Your task to perform on an android device: Open the stopwatch Image 0: 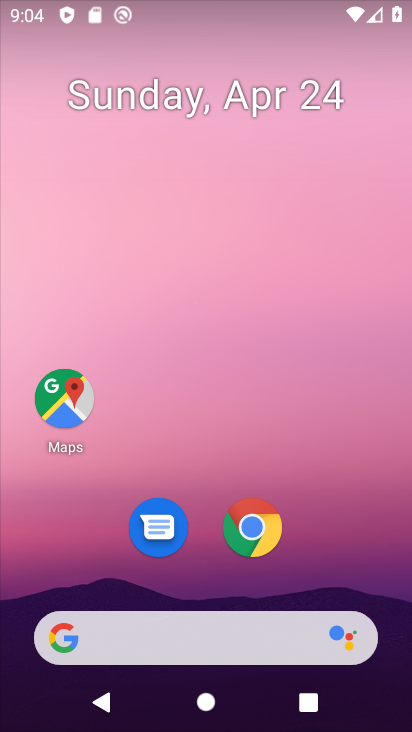
Step 0: drag from (193, 483) to (241, 101)
Your task to perform on an android device: Open the stopwatch Image 1: 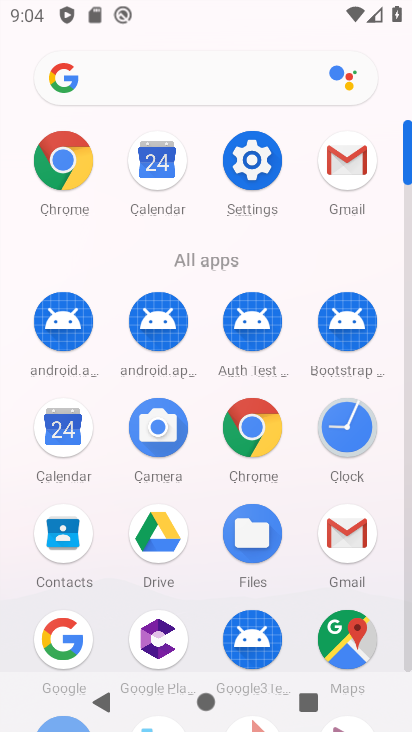
Step 1: click (344, 427)
Your task to perform on an android device: Open the stopwatch Image 2: 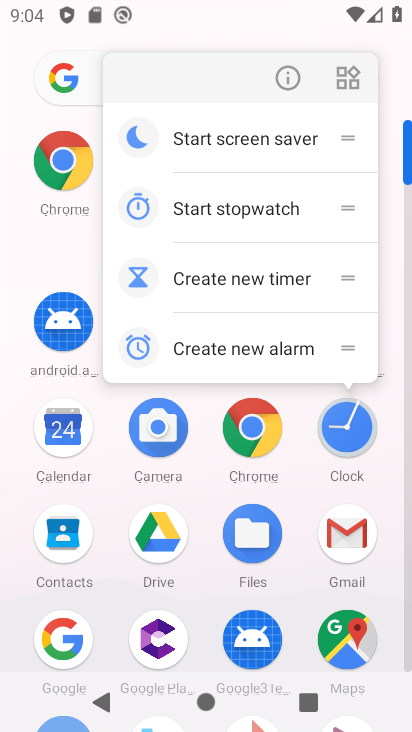
Step 2: click (358, 434)
Your task to perform on an android device: Open the stopwatch Image 3: 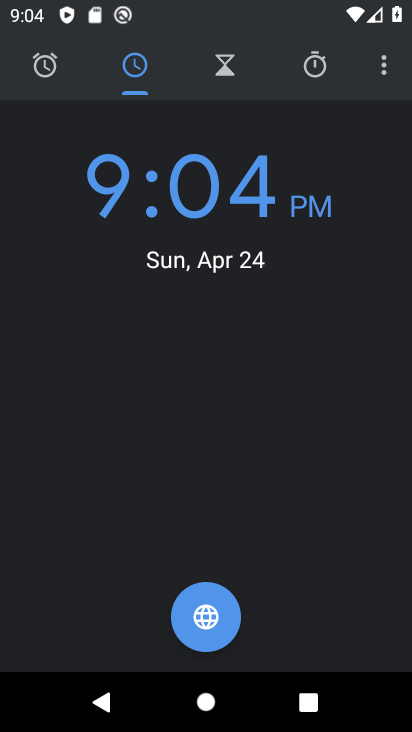
Step 3: click (325, 63)
Your task to perform on an android device: Open the stopwatch Image 4: 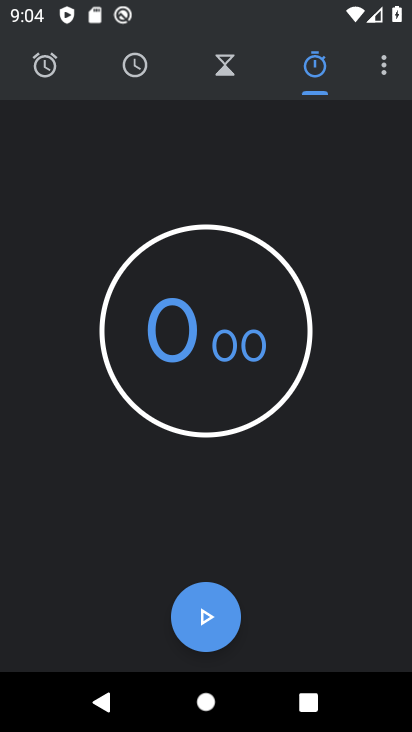
Step 4: task complete